Your task to perform on an android device: turn off translation in the chrome app Image 0: 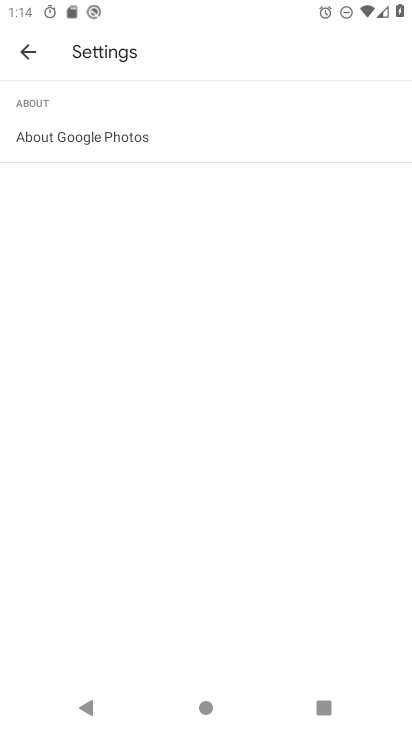
Step 0: press home button
Your task to perform on an android device: turn off translation in the chrome app Image 1: 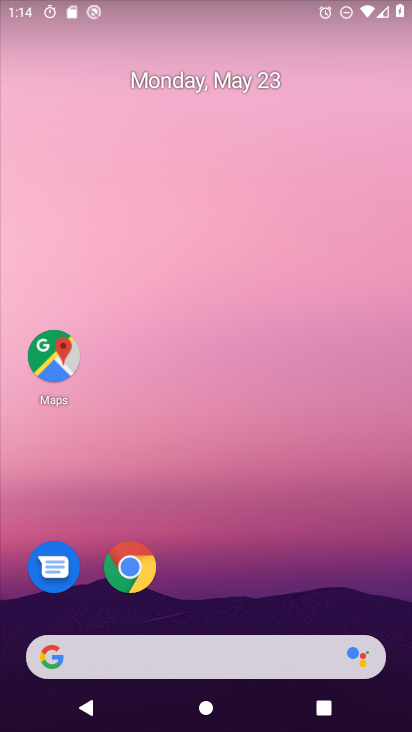
Step 1: click (120, 570)
Your task to perform on an android device: turn off translation in the chrome app Image 2: 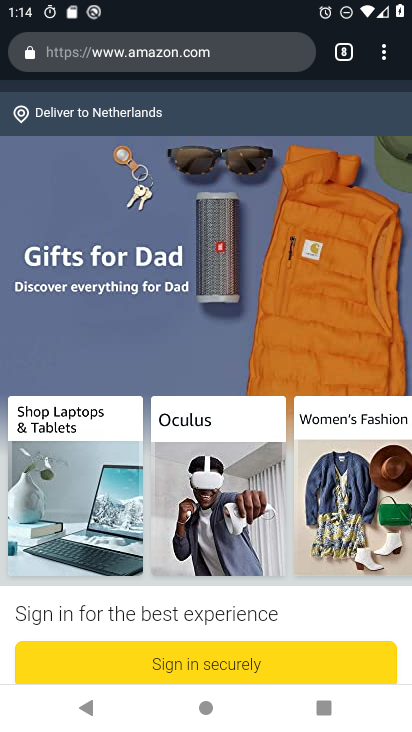
Step 2: click (392, 57)
Your task to perform on an android device: turn off translation in the chrome app Image 3: 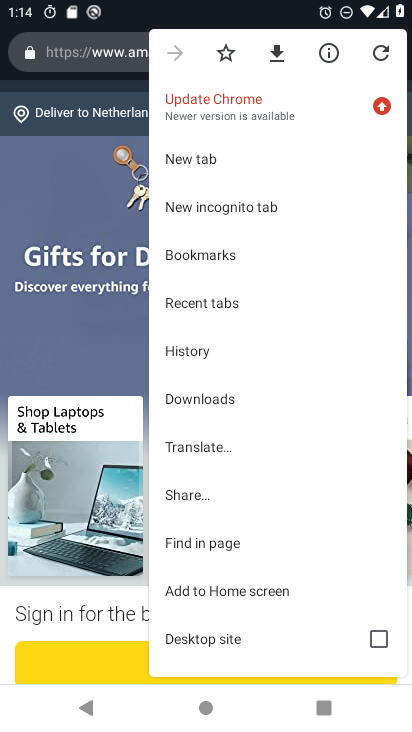
Step 3: drag from (220, 630) to (321, 120)
Your task to perform on an android device: turn off translation in the chrome app Image 4: 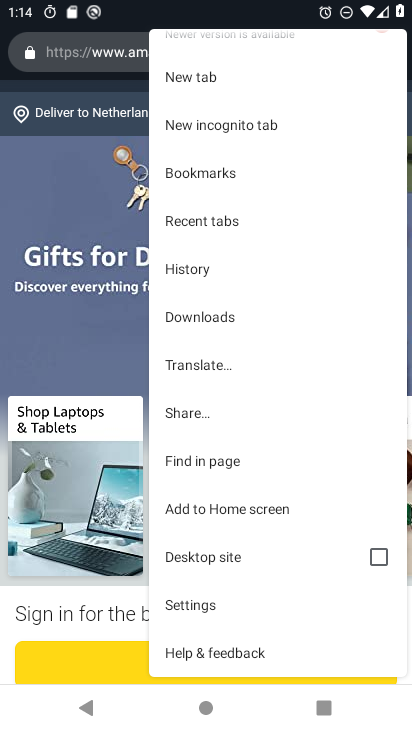
Step 4: click (195, 615)
Your task to perform on an android device: turn off translation in the chrome app Image 5: 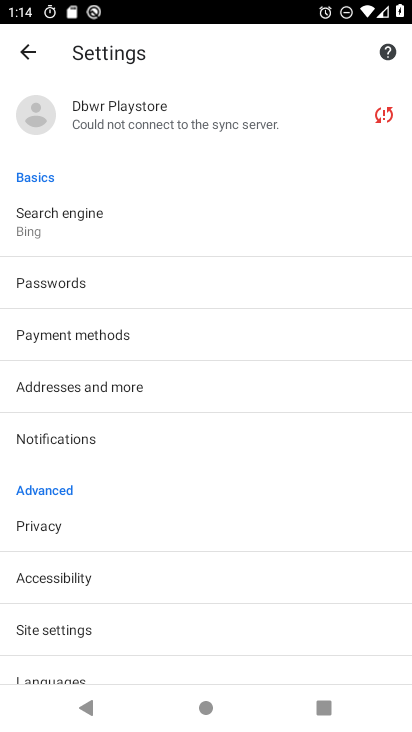
Step 5: drag from (195, 615) to (278, 308)
Your task to perform on an android device: turn off translation in the chrome app Image 6: 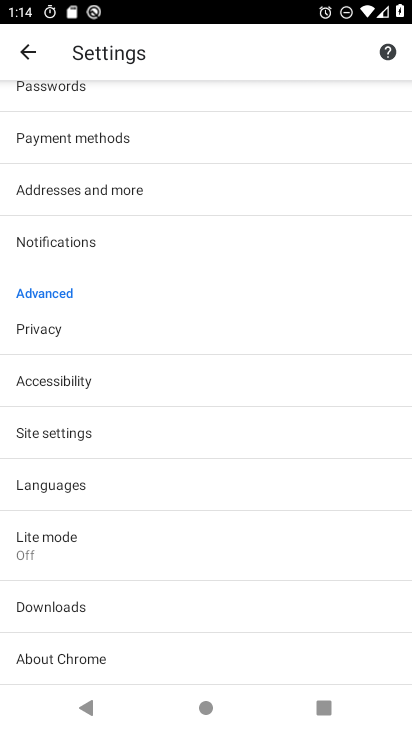
Step 6: click (146, 492)
Your task to perform on an android device: turn off translation in the chrome app Image 7: 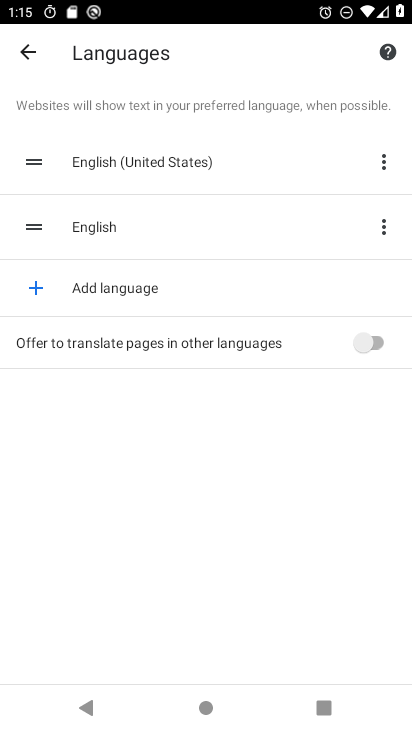
Step 7: task complete